Your task to perform on an android device: check data usage Image 0: 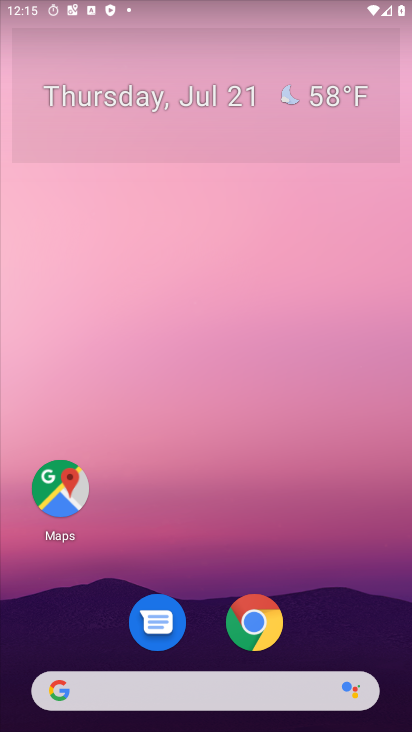
Step 0: drag from (128, 310) to (169, 106)
Your task to perform on an android device: check data usage Image 1: 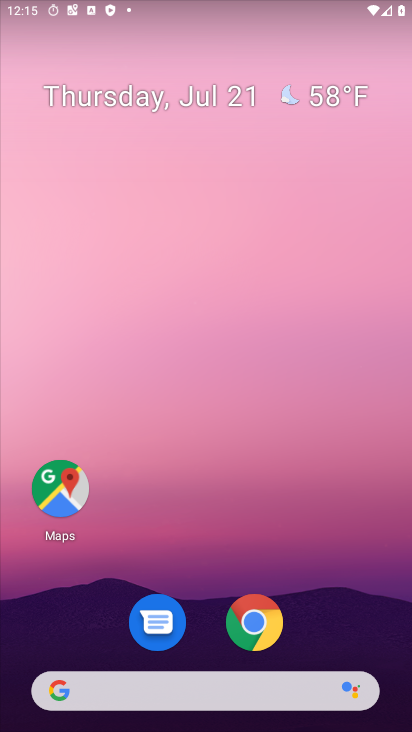
Step 1: drag from (32, 706) to (169, 204)
Your task to perform on an android device: check data usage Image 2: 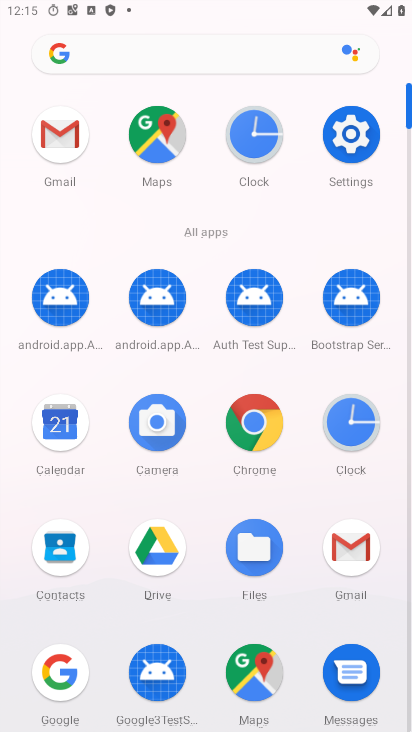
Step 2: drag from (135, 695) to (233, 12)
Your task to perform on an android device: check data usage Image 3: 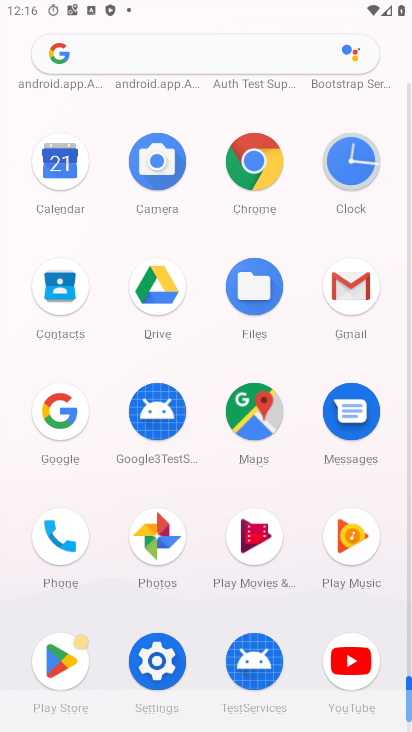
Step 3: click (149, 673)
Your task to perform on an android device: check data usage Image 4: 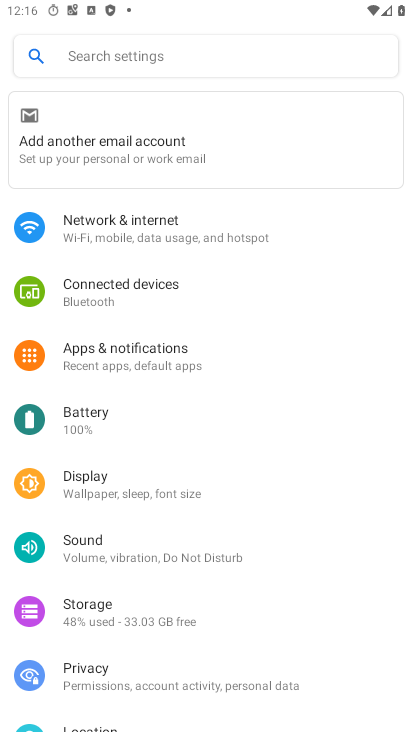
Step 4: click (78, 227)
Your task to perform on an android device: check data usage Image 5: 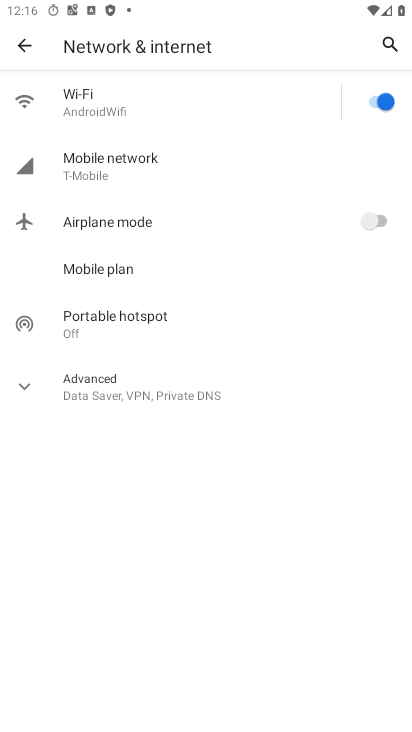
Step 5: click (113, 173)
Your task to perform on an android device: check data usage Image 6: 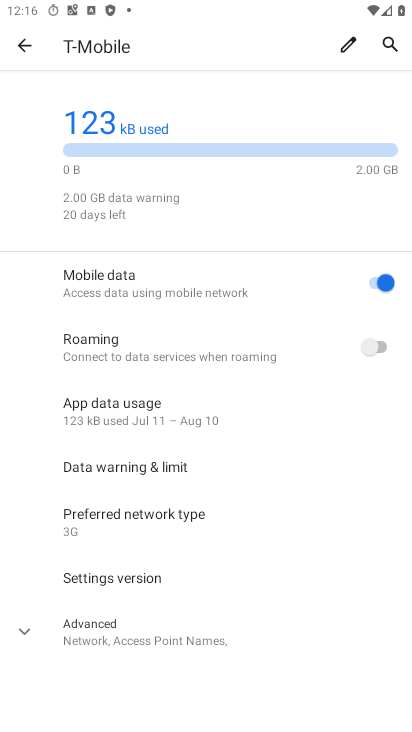
Step 6: task complete